Your task to perform on an android device: toggle data saver in the chrome app Image 0: 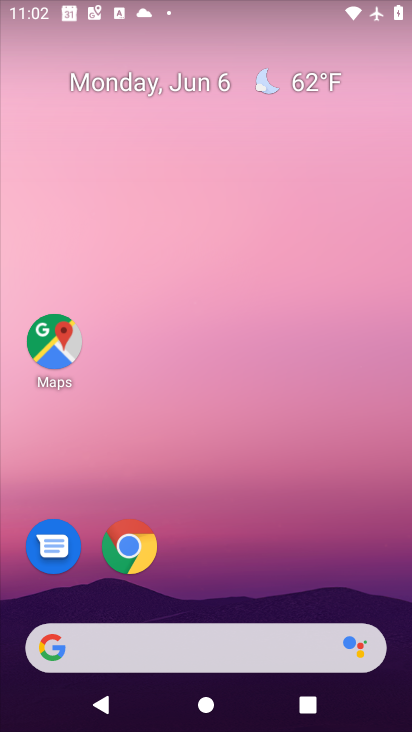
Step 0: click (132, 545)
Your task to perform on an android device: toggle data saver in the chrome app Image 1: 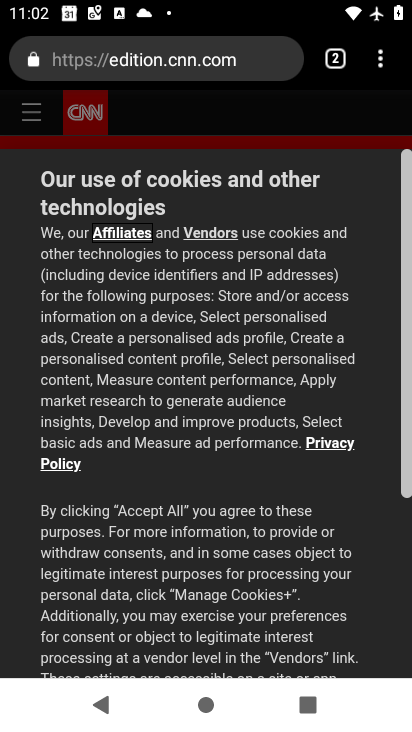
Step 1: click (381, 62)
Your task to perform on an android device: toggle data saver in the chrome app Image 2: 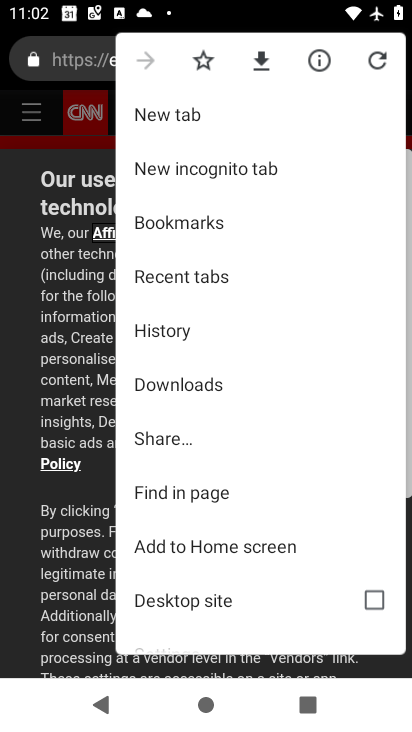
Step 2: drag from (314, 609) to (283, 234)
Your task to perform on an android device: toggle data saver in the chrome app Image 3: 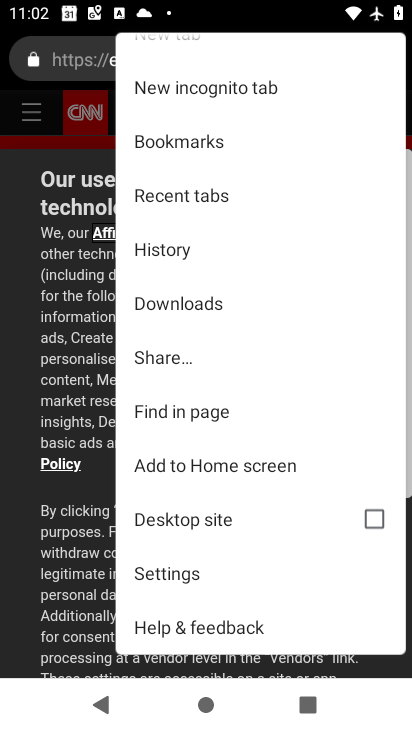
Step 3: click (164, 567)
Your task to perform on an android device: toggle data saver in the chrome app Image 4: 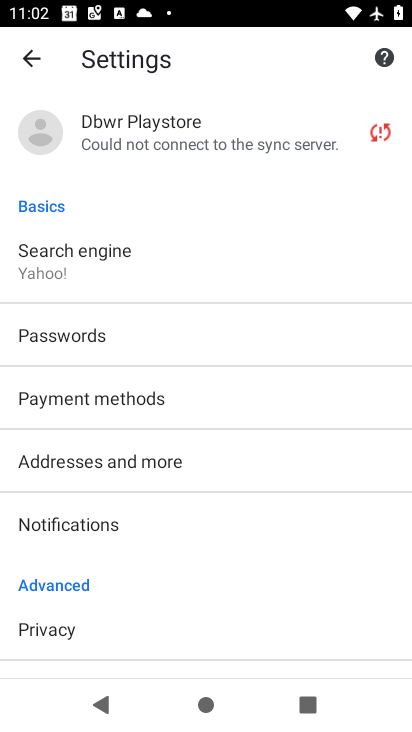
Step 4: drag from (183, 611) to (215, 157)
Your task to perform on an android device: toggle data saver in the chrome app Image 5: 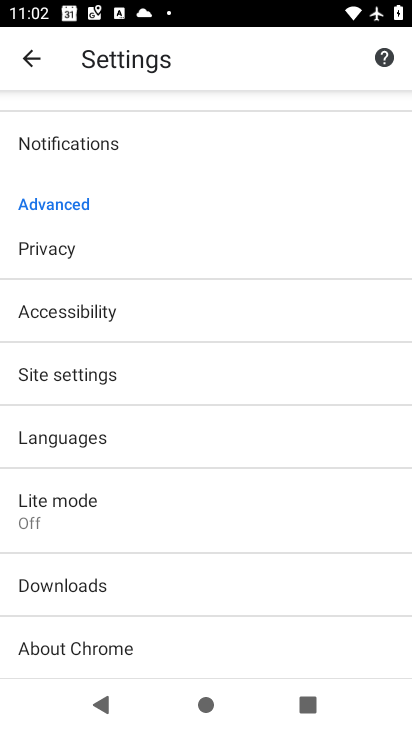
Step 5: click (49, 500)
Your task to perform on an android device: toggle data saver in the chrome app Image 6: 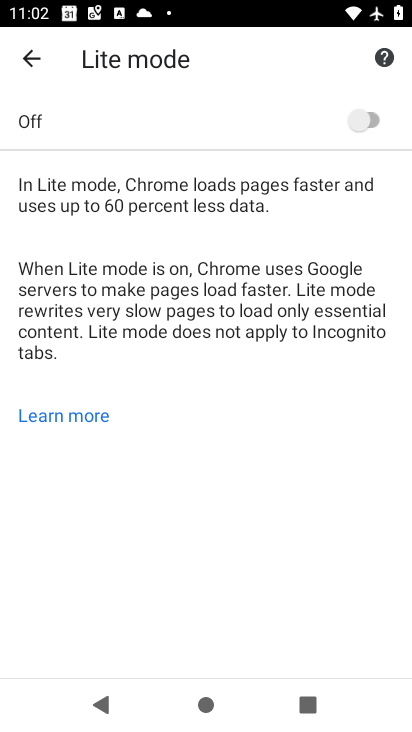
Step 6: click (377, 116)
Your task to perform on an android device: toggle data saver in the chrome app Image 7: 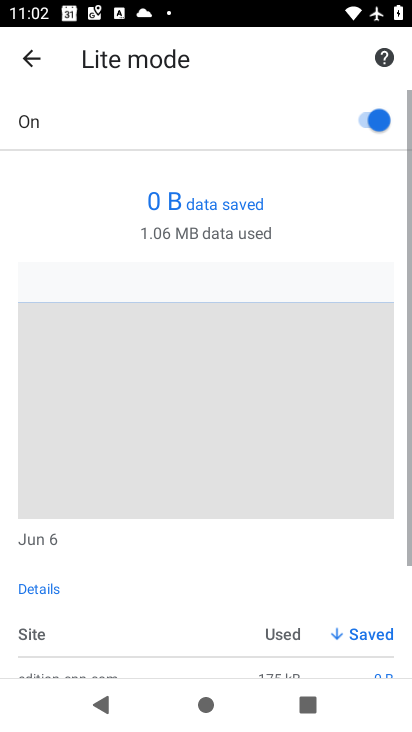
Step 7: task complete